Your task to perform on an android device: remove spam from my inbox in the gmail app Image 0: 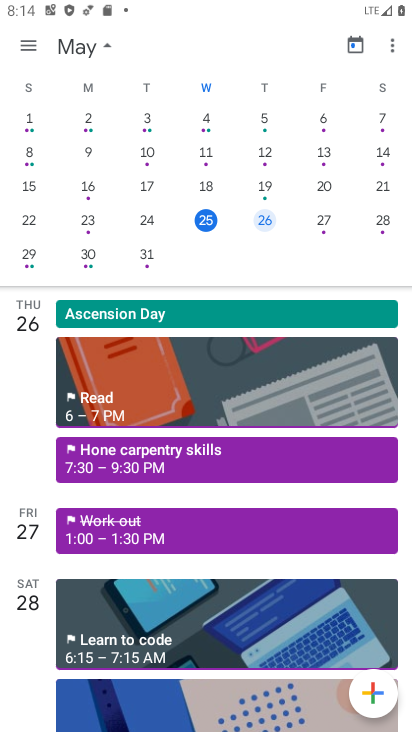
Step 0: press home button
Your task to perform on an android device: remove spam from my inbox in the gmail app Image 1: 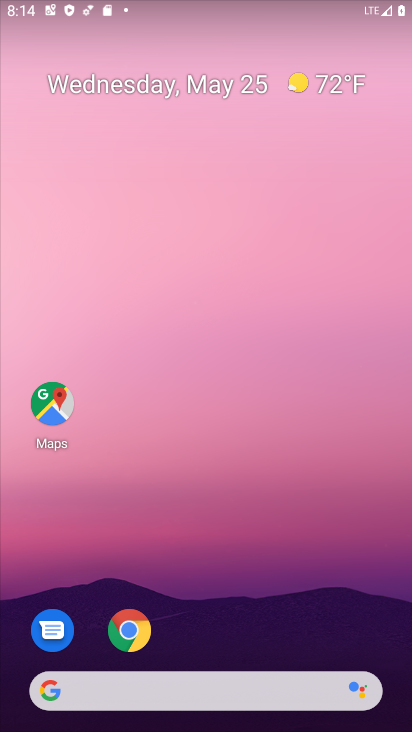
Step 1: drag from (218, 642) to (219, 226)
Your task to perform on an android device: remove spam from my inbox in the gmail app Image 2: 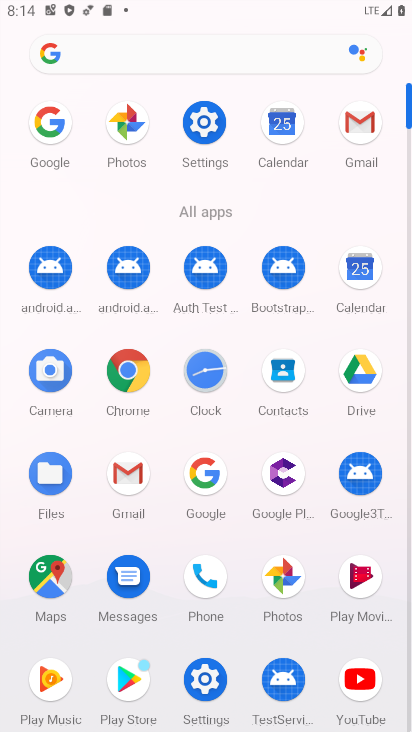
Step 2: click (346, 125)
Your task to perform on an android device: remove spam from my inbox in the gmail app Image 3: 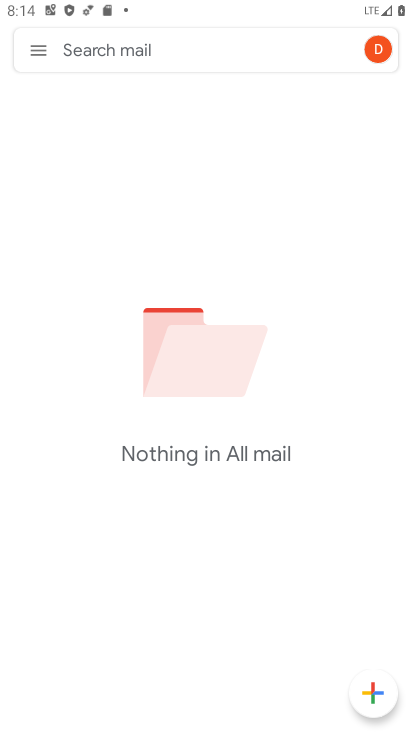
Step 3: click (22, 41)
Your task to perform on an android device: remove spam from my inbox in the gmail app Image 4: 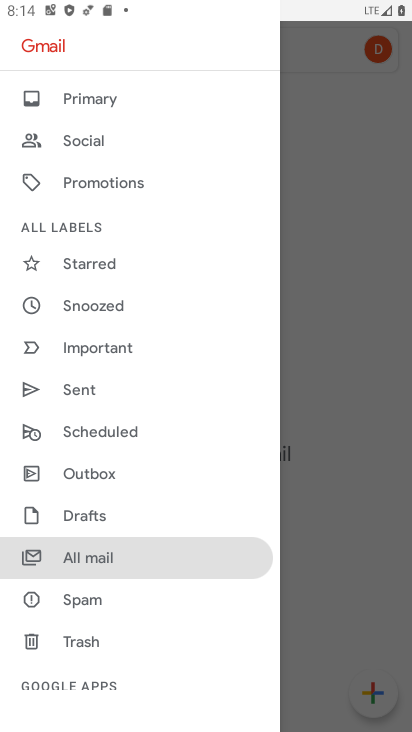
Step 4: click (68, 592)
Your task to perform on an android device: remove spam from my inbox in the gmail app Image 5: 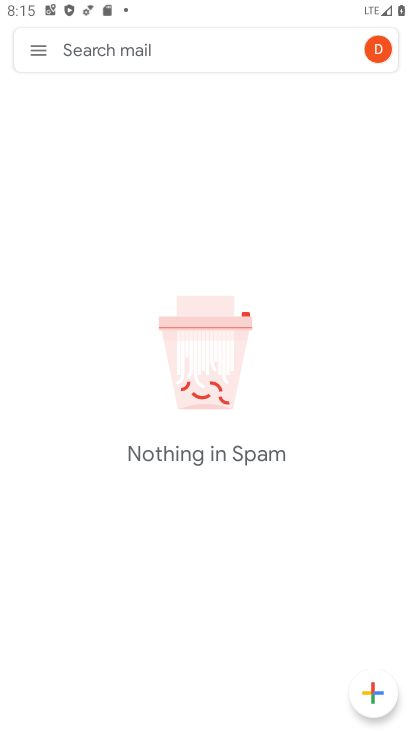
Step 5: task complete